Your task to perform on an android device: Search for Italian restaurants on Maps Image 0: 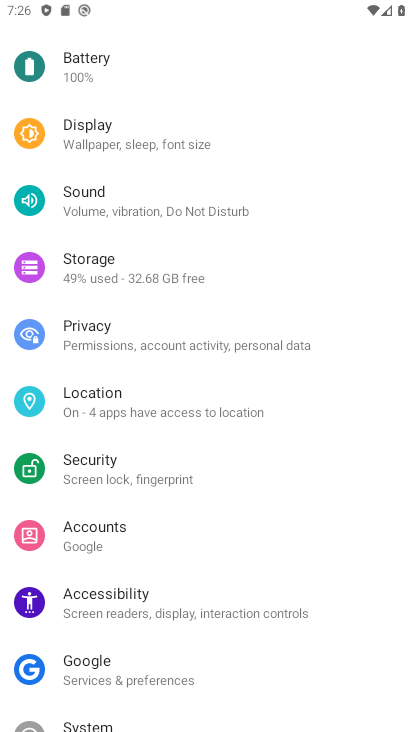
Step 0: press home button
Your task to perform on an android device: Search for Italian restaurants on Maps Image 1: 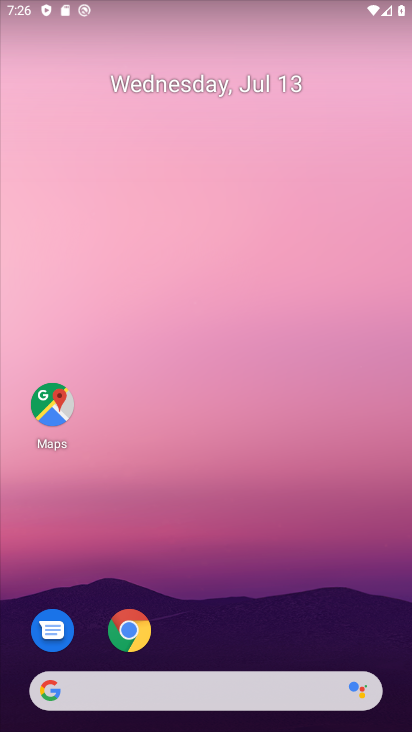
Step 1: drag from (351, 614) to (372, 142)
Your task to perform on an android device: Search for Italian restaurants on Maps Image 2: 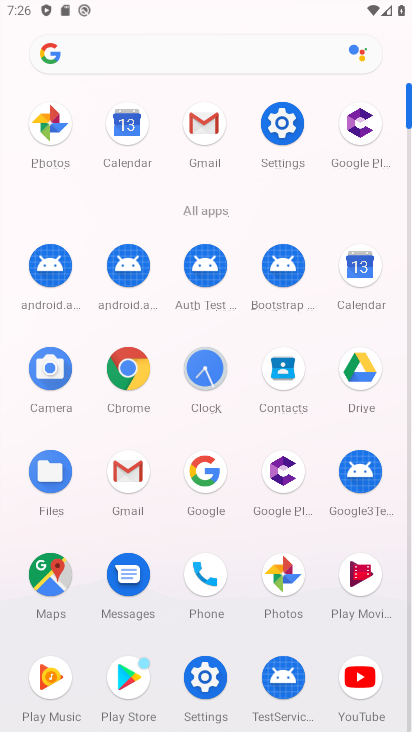
Step 2: click (48, 575)
Your task to perform on an android device: Search for Italian restaurants on Maps Image 3: 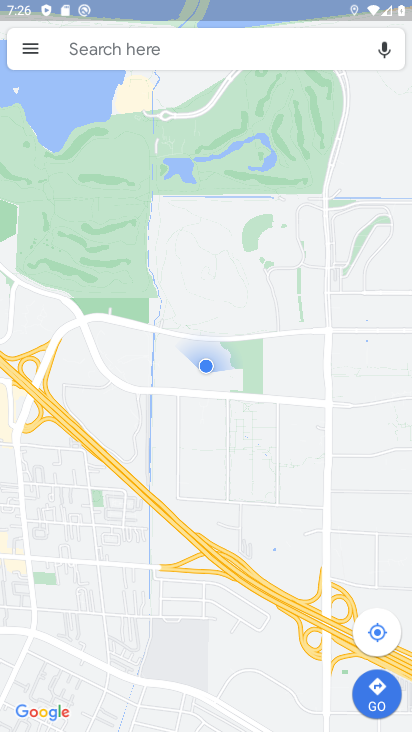
Step 3: click (176, 39)
Your task to perform on an android device: Search for Italian restaurants on Maps Image 4: 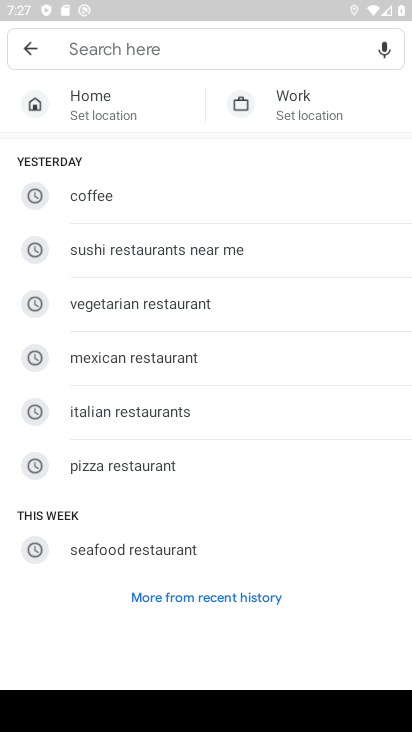
Step 4: type "italian restaurants"
Your task to perform on an android device: Search for Italian restaurants on Maps Image 5: 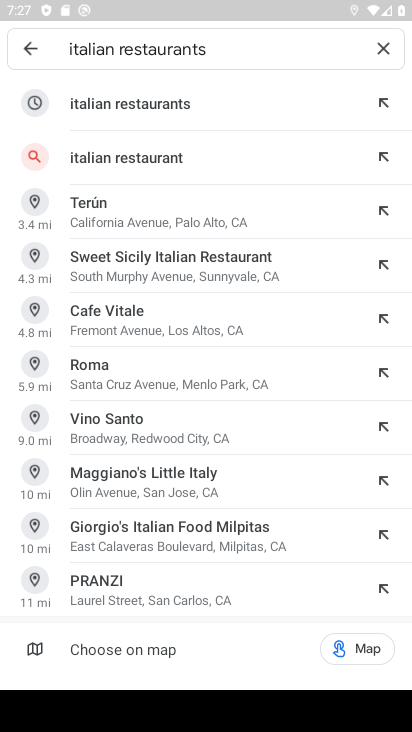
Step 5: click (250, 104)
Your task to perform on an android device: Search for Italian restaurants on Maps Image 6: 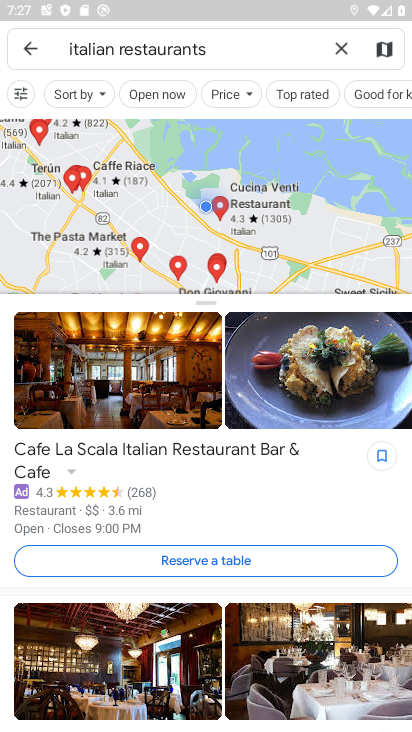
Step 6: task complete